Your task to perform on an android device: open wifi settings Image 0: 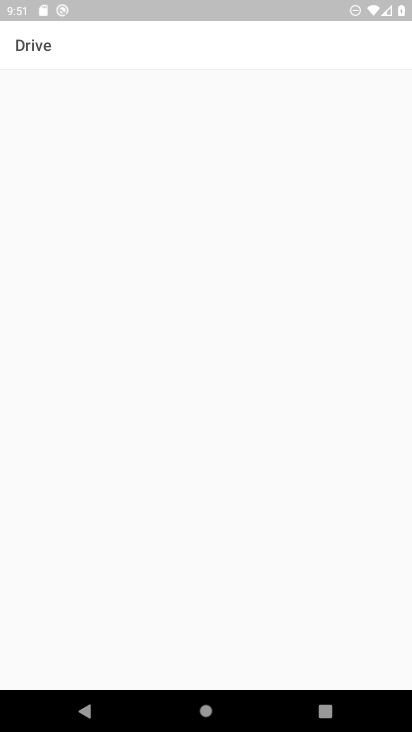
Step 0: press home button
Your task to perform on an android device: open wifi settings Image 1: 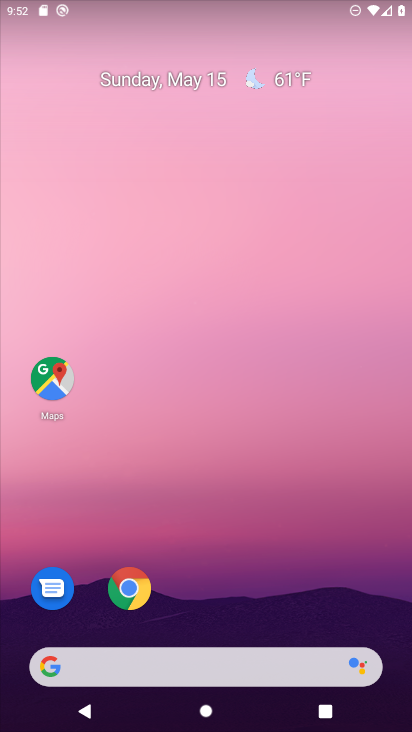
Step 1: drag from (185, 440) to (271, 39)
Your task to perform on an android device: open wifi settings Image 2: 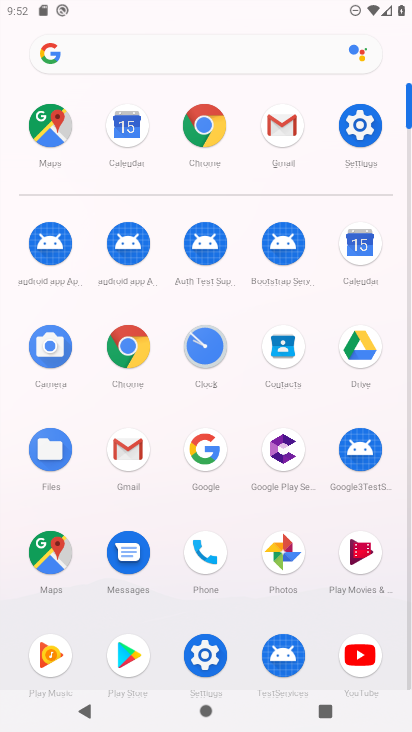
Step 2: click (373, 143)
Your task to perform on an android device: open wifi settings Image 3: 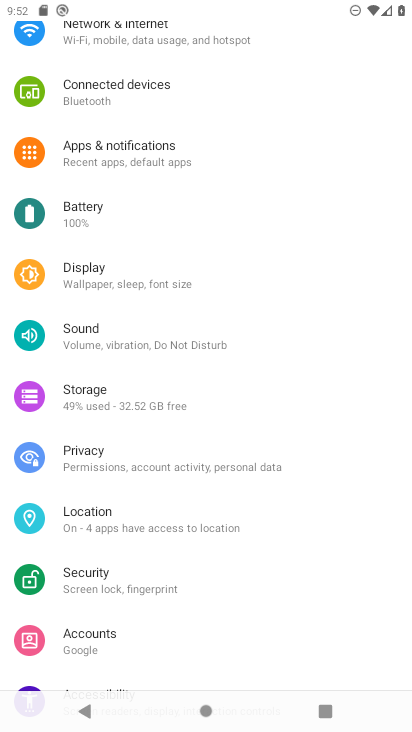
Step 3: drag from (210, 120) to (151, 603)
Your task to perform on an android device: open wifi settings Image 4: 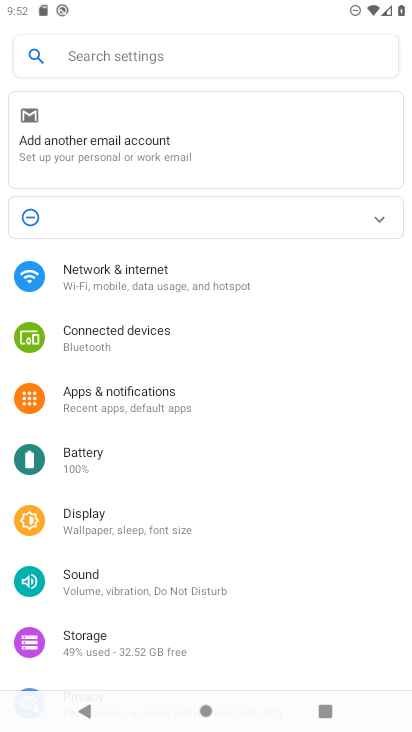
Step 4: click (140, 289)
Your task to perform on an android device: open wifi settings Image 5: 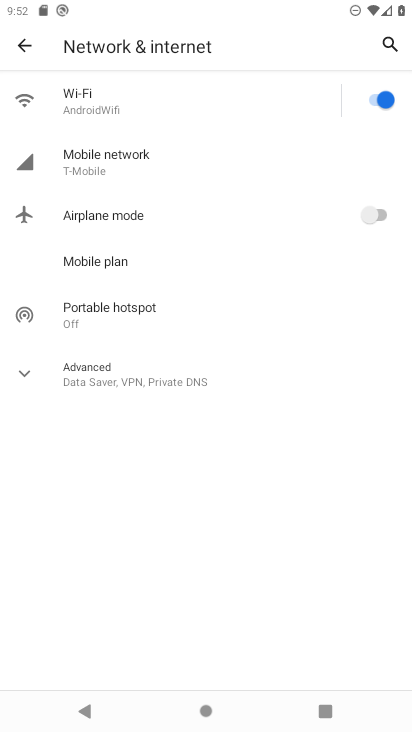
Step 5: click (120, 107)
Your task to perform on an android device: open wifi settings Image 6: 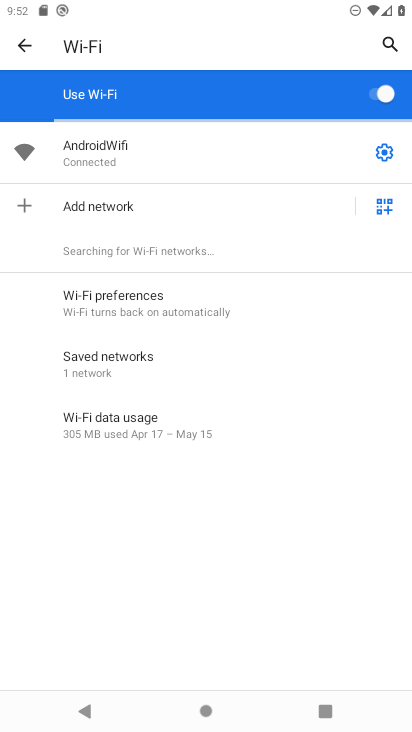
Step 6: task complete